Your task to perform on an android device: Is it going to rain this weekend? Image 0: 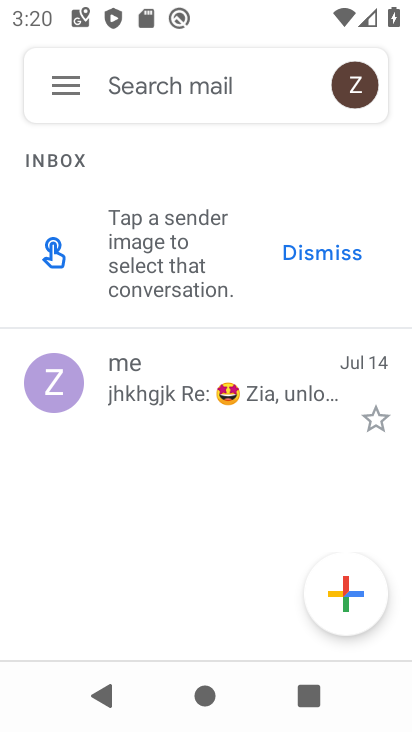
Step 0: press home button
Your task to perform on an android device: Is it going to rain this weekend? Image 1: 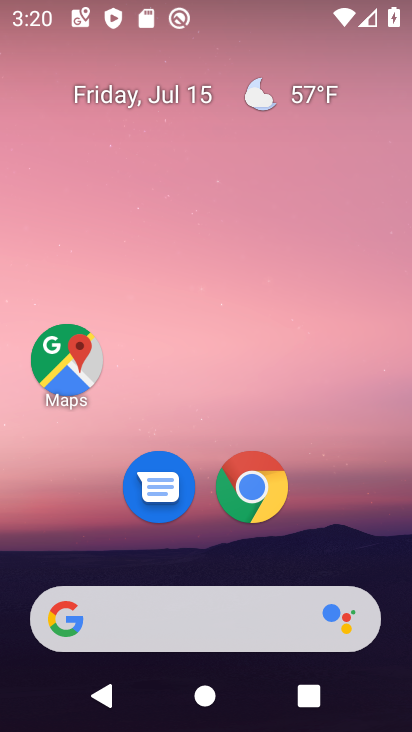
Step 1: drag from (178, 531) to (205, 187)
Your task to perform on an android device: Is it going to rain this weekend? Image 2: 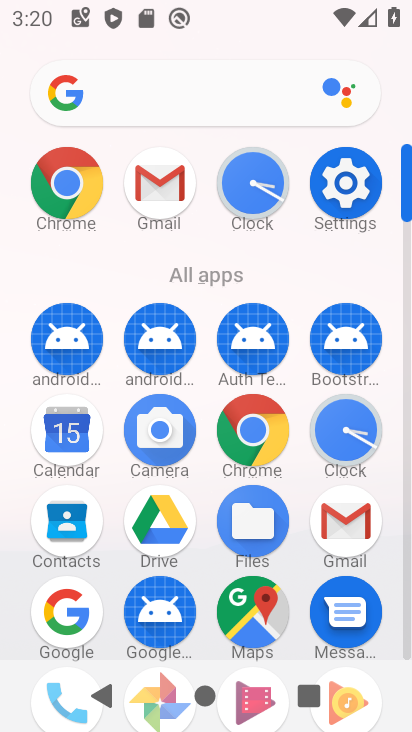
Step 2: click (82, 596)
Your task to perform on an android device: Is it going to rain this weekend? Image 3: 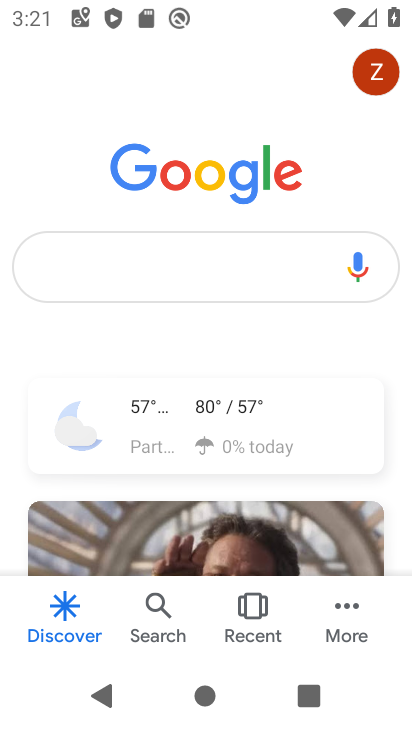
Step 3: click (174, 279)
Your task to perform on an android device: Is it going to rain this weekend? Image 4: 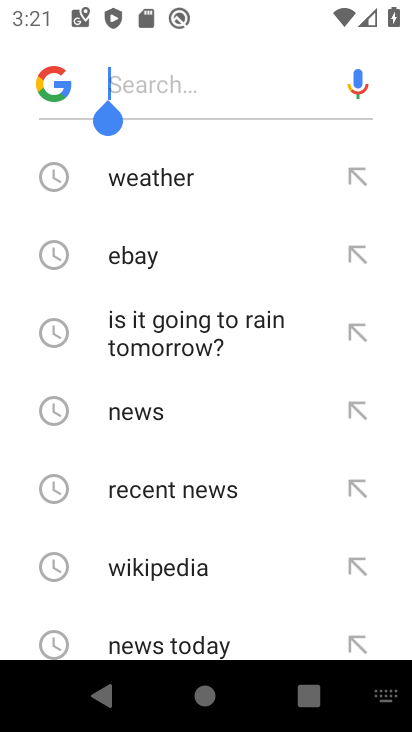
Step 4: click (163, 188)
Your task to perform on an android device: Is it going to rain this weekend? Image 5: 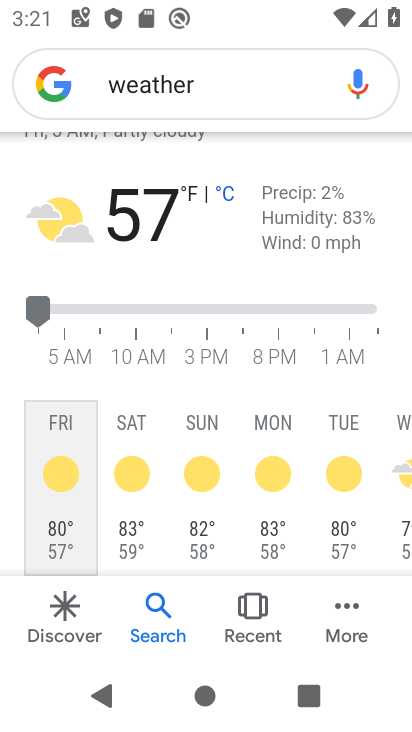
Step 5: task complete